Your task to perform on an android device: snooze an email in the gmail app Image 0: 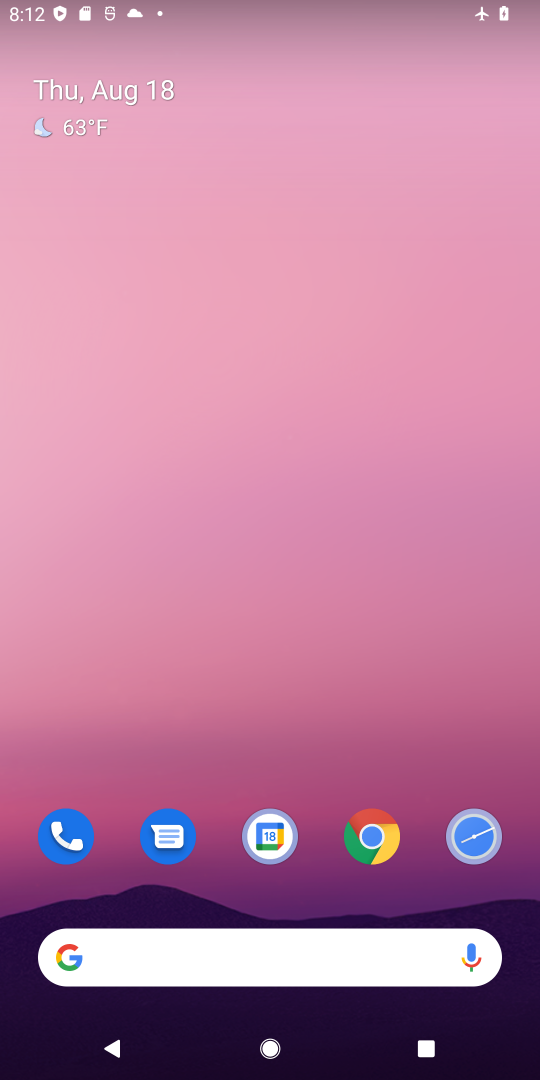
Step 0: drag from (415, 649) to (413, 129)
Your task to perform on an android device: snooze an email in the gmail app Image 1: 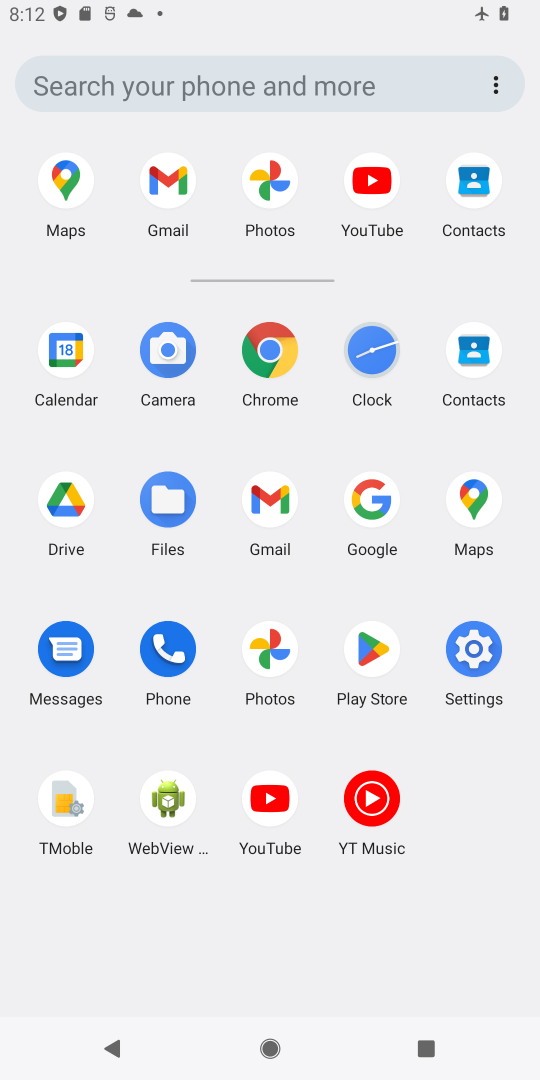
Step 1: click (282, 509)
Your task to perform on an android device: snooze an email in the gmail app Image 2: 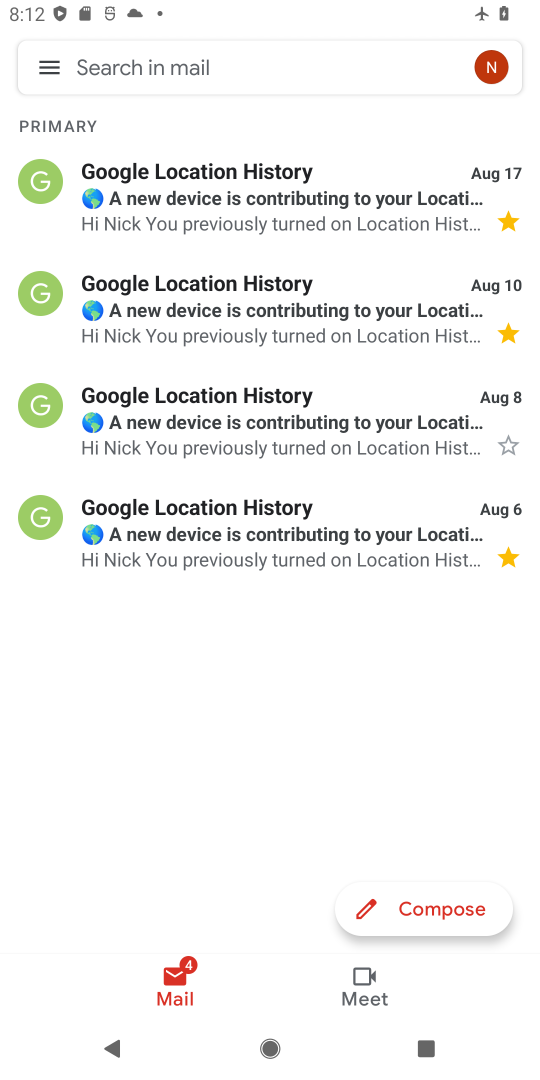
Step 2: click (313, 212)
Your task to perform on an android device: snooze an email in the gmail app Image 3: 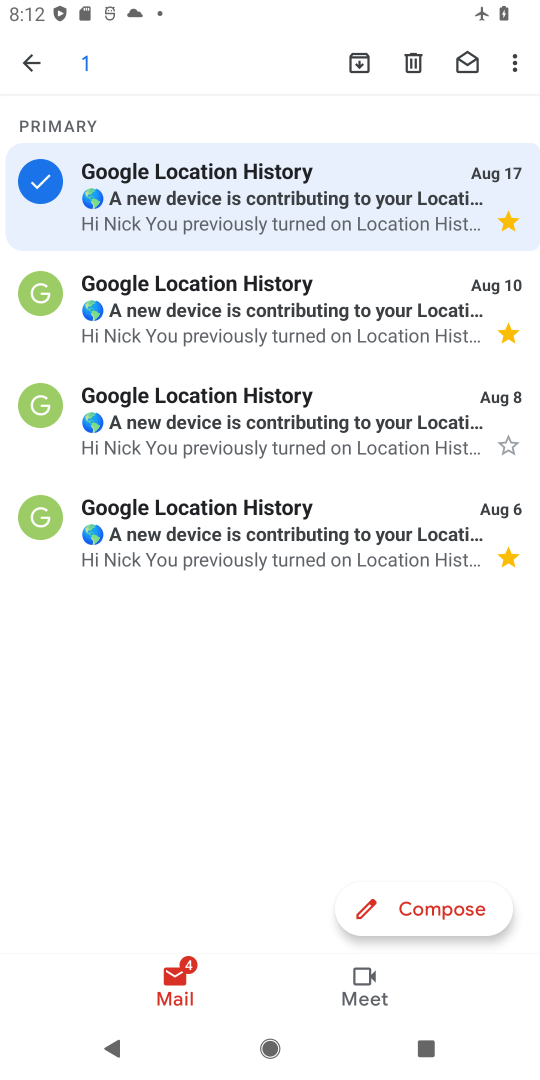
Step 3: click (518, 63)
Your task to perform on an android device: snooze an email in the gmail app Image 4: 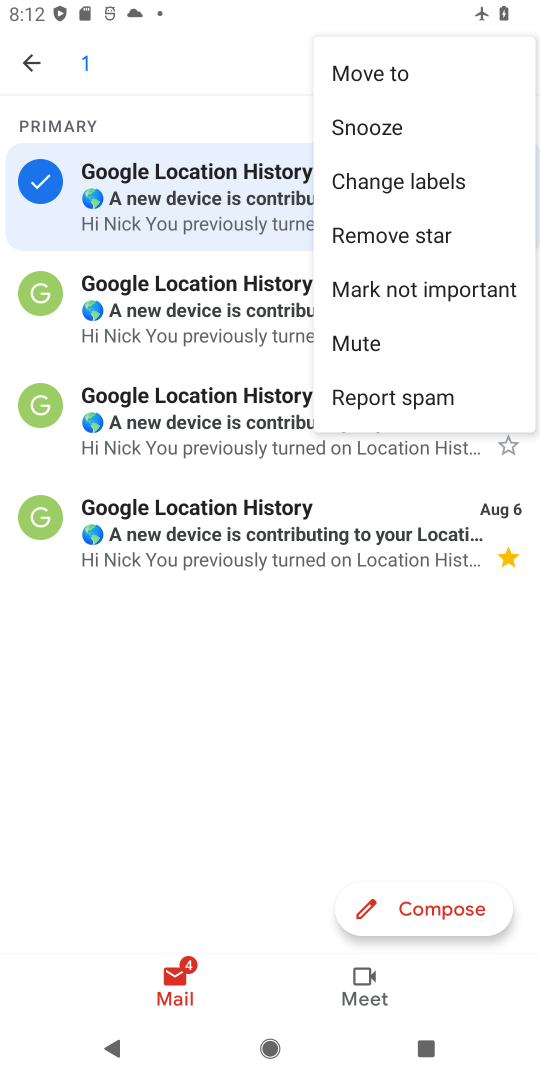
Step 4: click (398, 126)
Your task to perform on an android device: snooze an email in the gmail app Image 5: 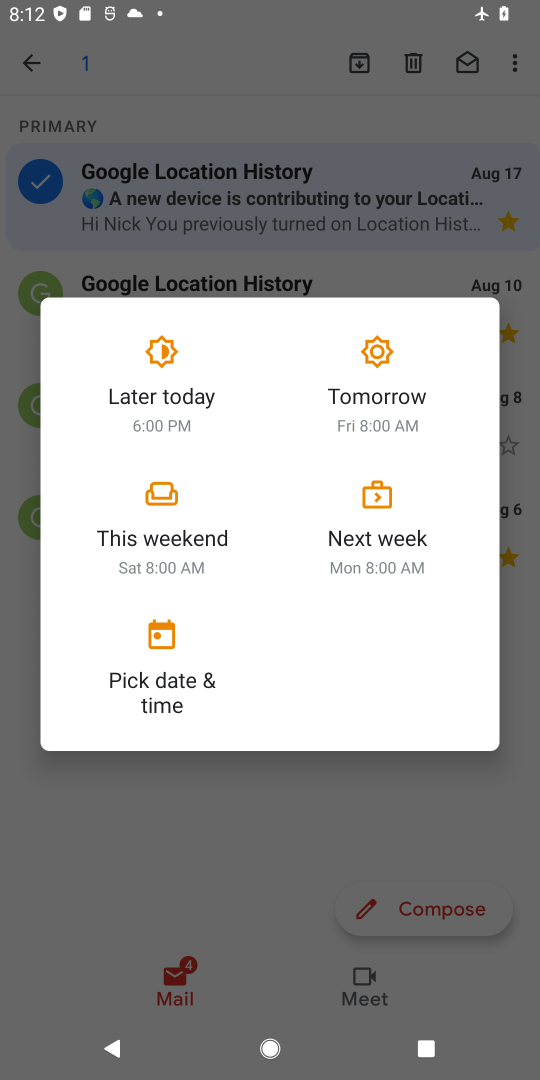
Step 5: click (348, 400)
Your task to perform on an android device: snooze an email in the gmail app Image 6: 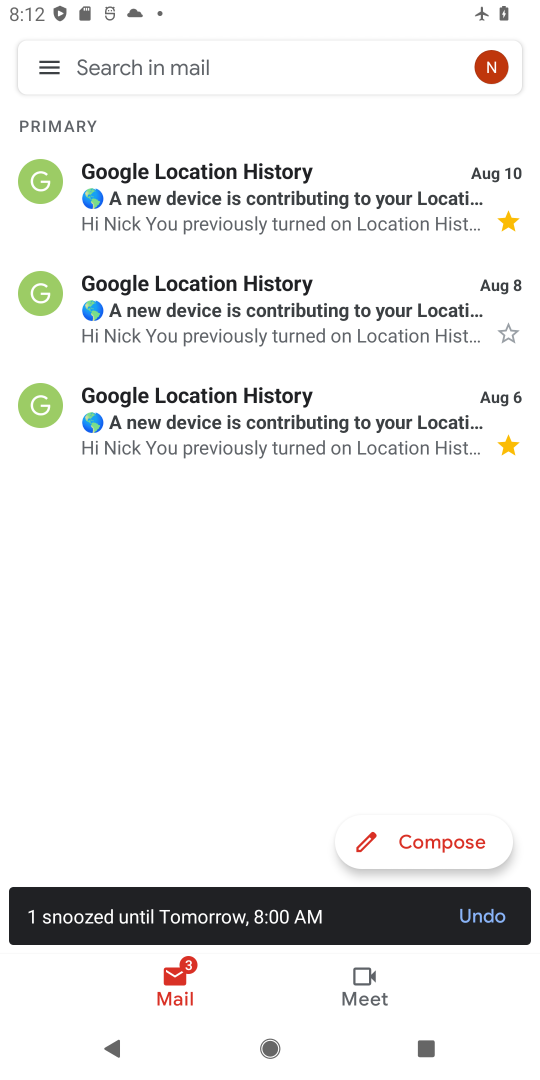
Step 6: task complete